Your task to perform on an android device: allow notifications from all sites in the chrome app Image 0: 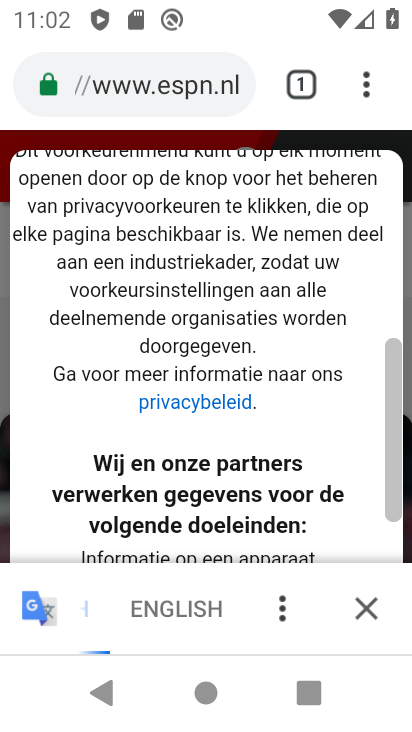
Step 0: click (379, 78)
Your task to perform on an android device: allow notifications from all sites in the chrome app Image 1: 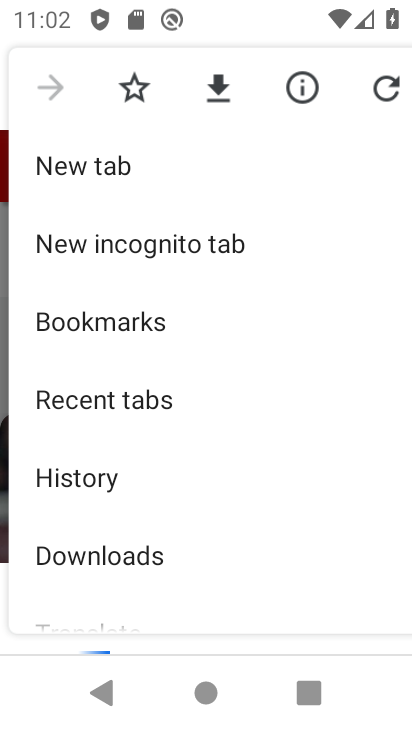
Step 1: drag from (109, 596) to (124, 310)
Your task to perform on an android device: allow notifications from all sites in the chrome app Image 2: 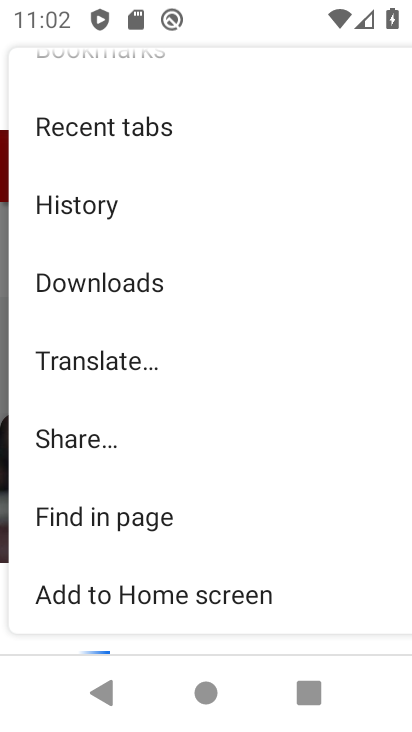
Step 2: drag from (144, 508) to (137, 341)
Your task to perform on an android device: allow notifications from all sites in the chrome app Image 3: 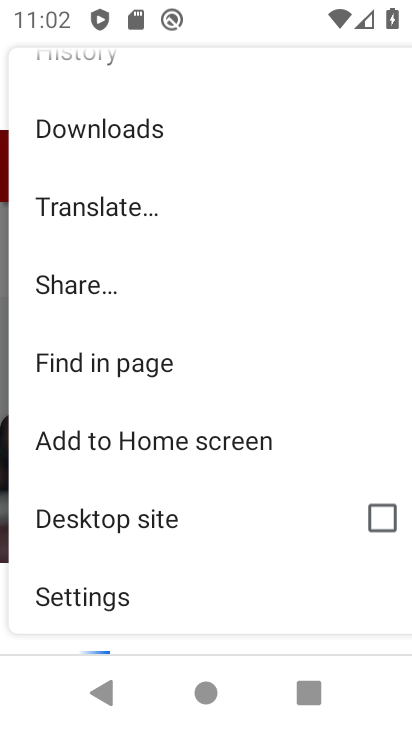
Step 3: click (142, 581)
Your task to perform on an android device: allow notifications from all sites in the chrome app Image 4: 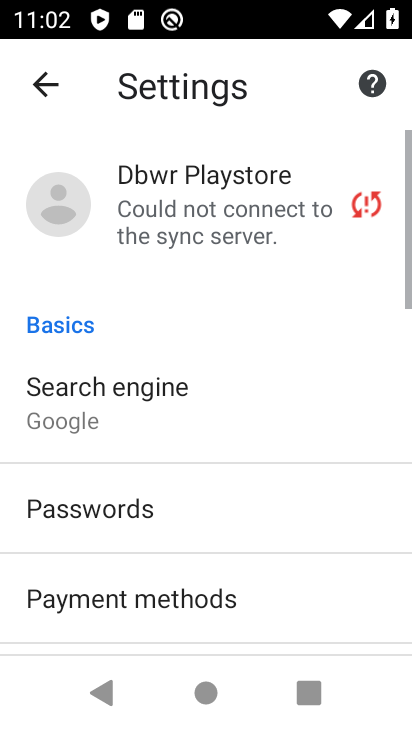
Step 4: drag from (161, 556) to (141, 81)
Your task to perform on an android device: allow notifications from all sites in the chrome app Image 5: 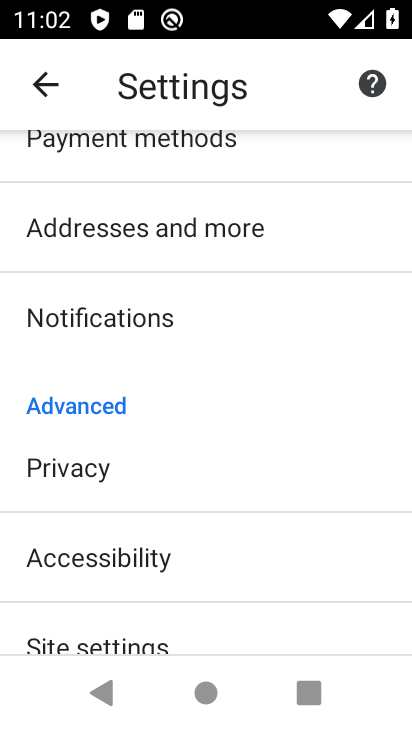
Step 5: click (151, 321)
Your task to perform on an android device: allow notifications from all sites in the chrome app Image 6: 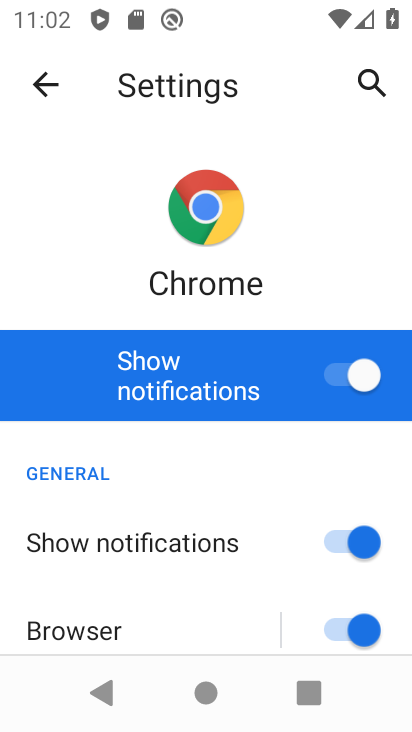
Step 6: task complete